Your task to perform on an android device: turn off smart reply in the gmail app Image 0: 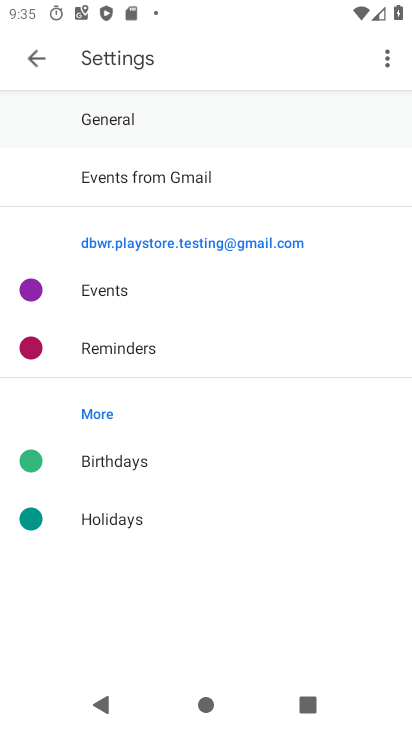
Step 0: press back button
Your task to perform on an android device: turn off smart reply in the gmail app Image 1: 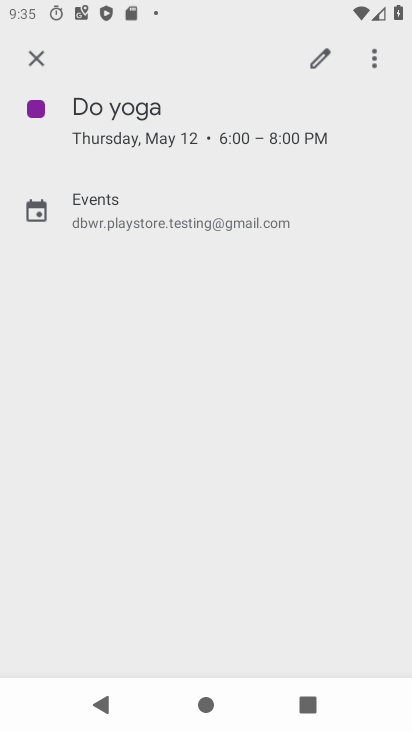
Step 1: press back button
Your task to perform on an android device: turn off smart reply in the gmail app Image 2: 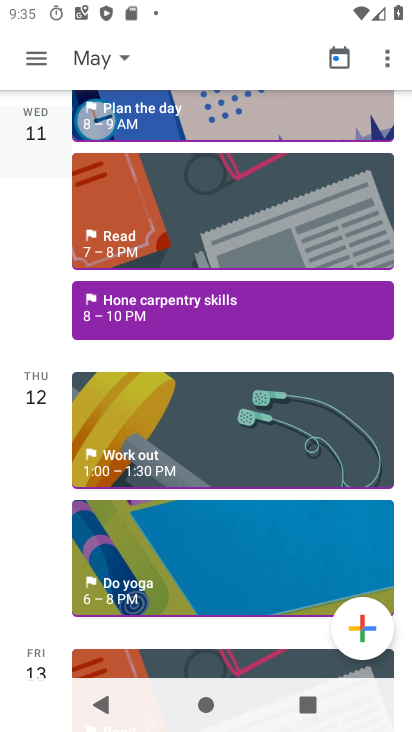
Step 2: press back button
Your task to perform on an android device: turn off smart reply in the gmail app Image 3: 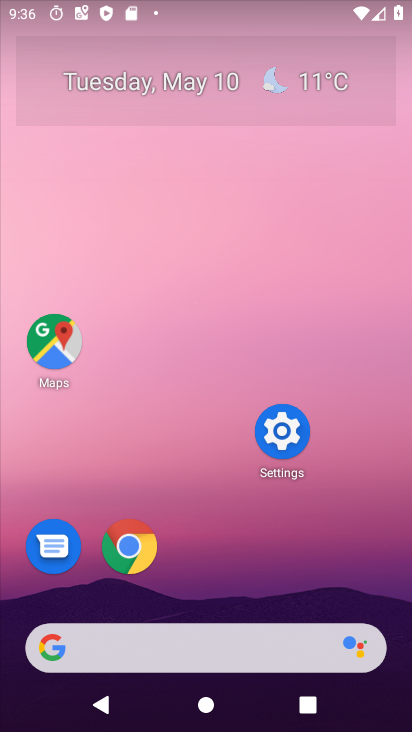
Step 3: drag from (216, 511) to (270, 30)
Your task to perform on an android device: turn off smart reply in the gmail app Image 4: 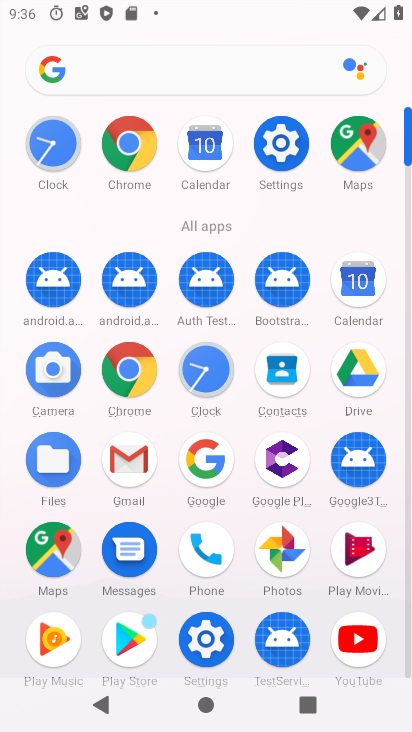
Step 4: click (121, 467)
Your task to perform on an android device: turn off smart reply in the gmail app Image 5: 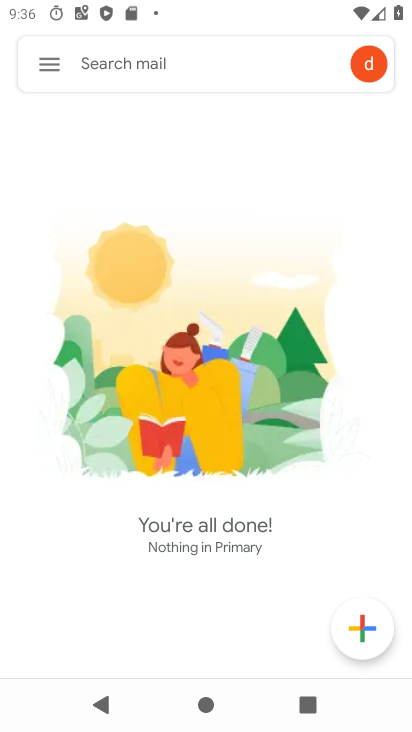
Step 5: click (32, 51)
Your task to perform on an android device: turn off smart reply in the gmail app Image 6: 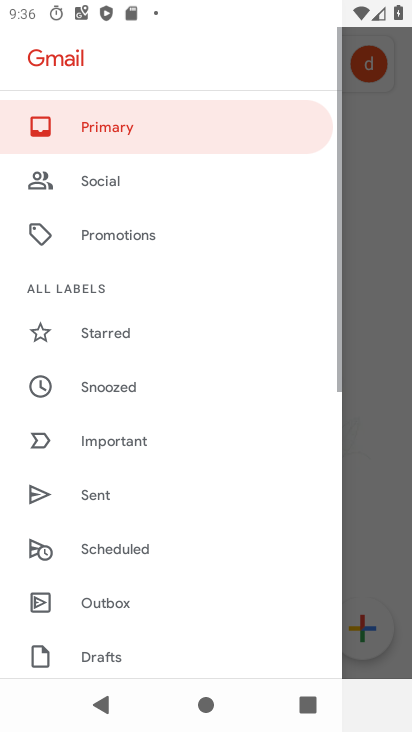
Step 6: drag from (127, 624) to (258, 58)
Your task to perform on an android device: turn off smart reply in the gmail app Image 7: 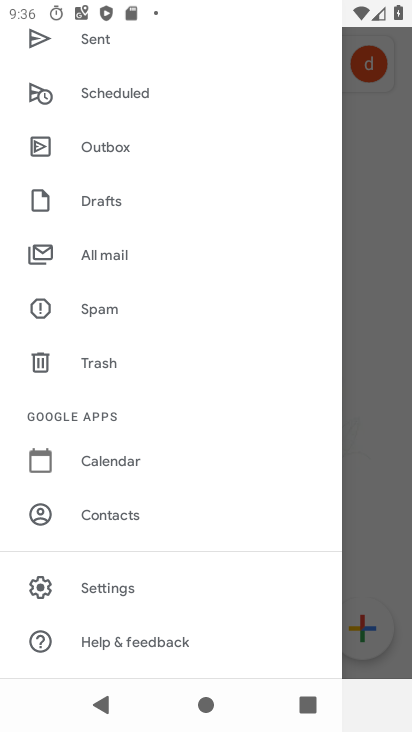
Step 7: click (107, 599)
Your task to perform on an android device: turn off smart reply in the gmail app Image 8: 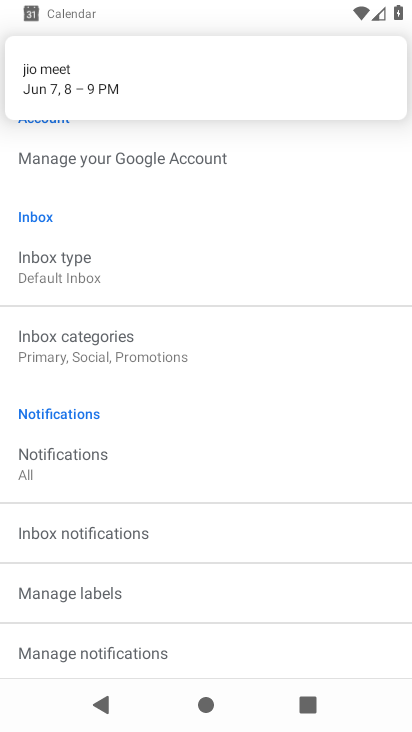
Step 8: drag from (148, 659) to (293, 94)
Your task to perform on an android device: turn off smart reply in the gmail app Image 9: 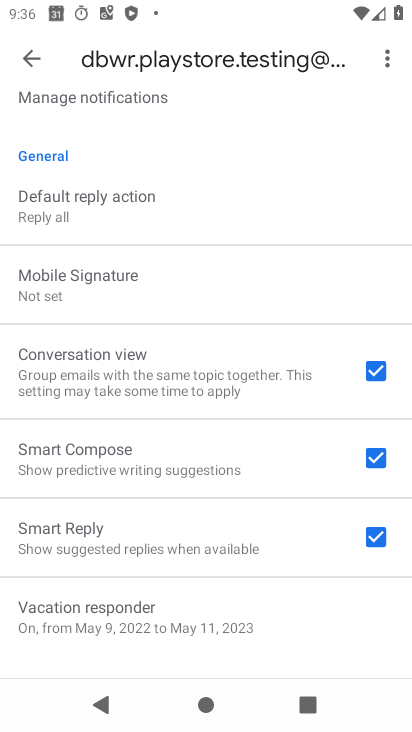
Step 9: click (374, 539)
Your task to perform on an android device: turn off smart reply in the gmail app Image 10: 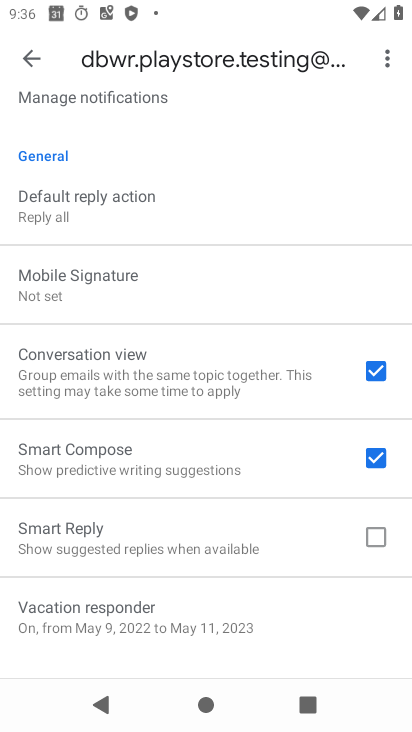
Step 10: task complete